Your task to perform on an android device: Open CNN.com Image 0: 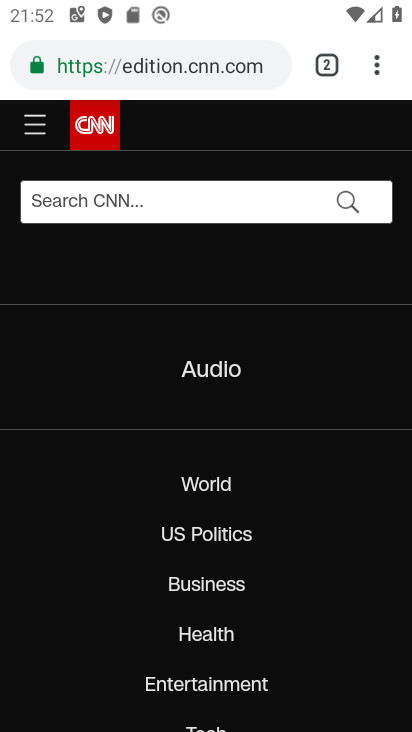
Step 0: task complete